Your task to perform on an android device: manage bookmarks in the chrome app Image 0: 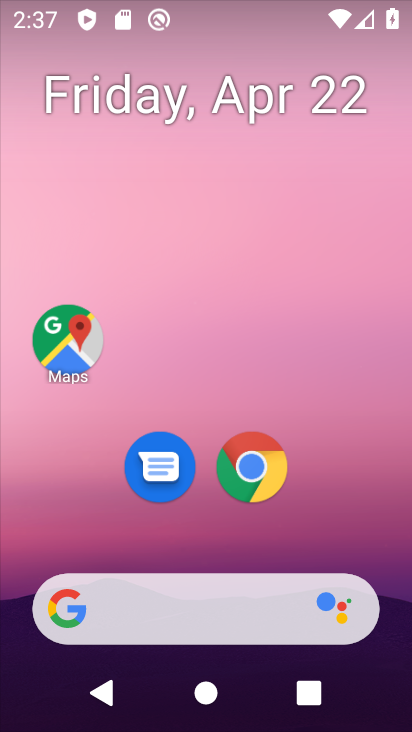
Step 0: click (278, 461)
Your task to perform on an android device: manage bookmarks in the chrome app Image 1: 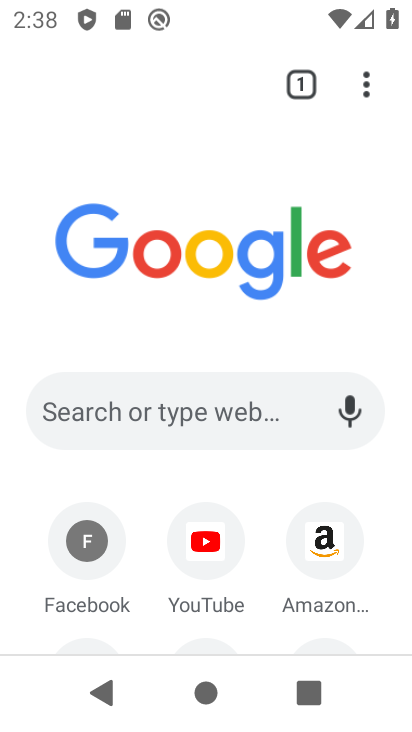
Step 1: click (366, 108)
Your task to perform on an android device: manage bookmarks in the chrome app Image 2: 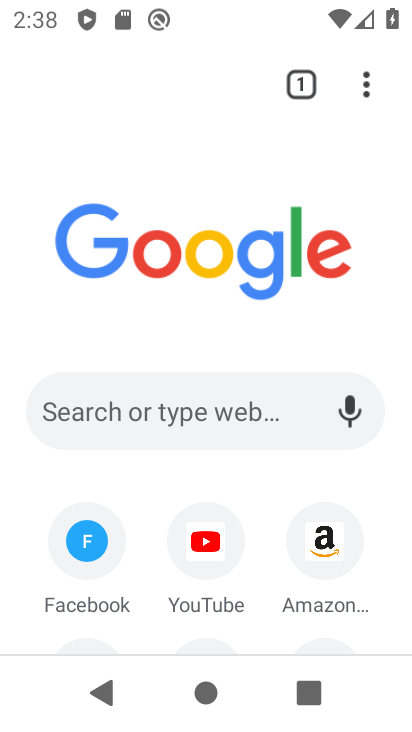
Step 2: drag from (366, 108) to (239, 329)
Your task to perform on an android device: manage bookmarks in the chrome app Image 3: 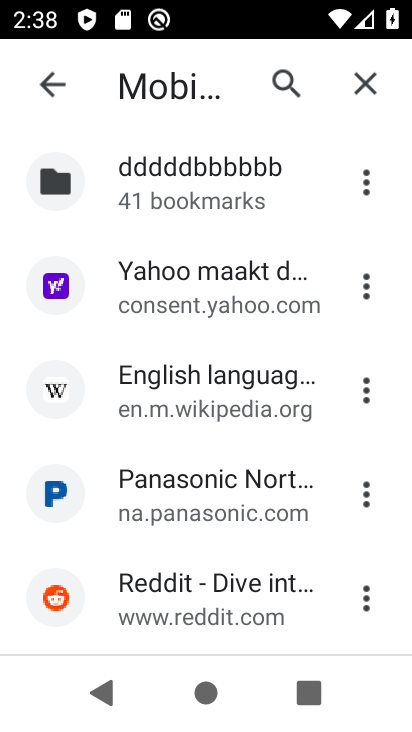
Step 3: click (197, 436)
Your task to perform on an android device: manage bookmarks in the chrome app Image 4: 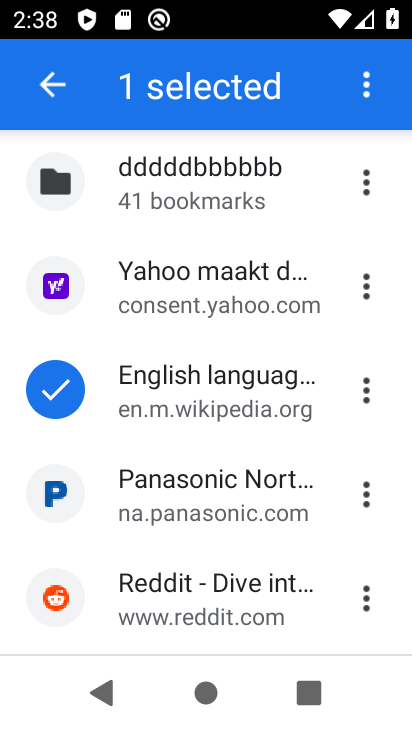
Step 4: click (356, 99)
Your task to perform on an android device: manage bookmarks in the chrome app Image 5: 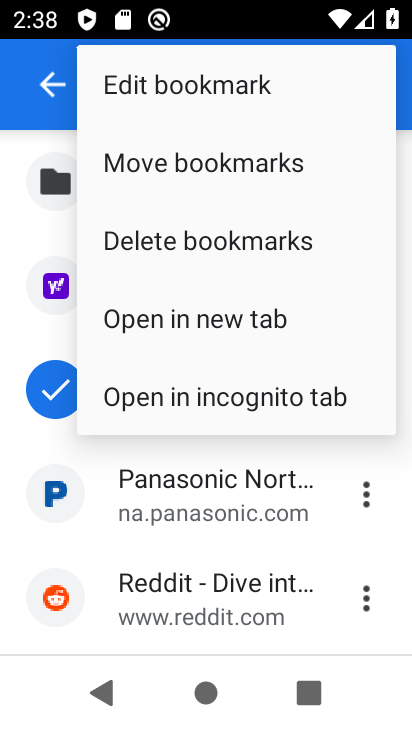
Step 5: click (244, 95)
Your task to perform on an android device: manage bookmarks in the chrome app Image 6: 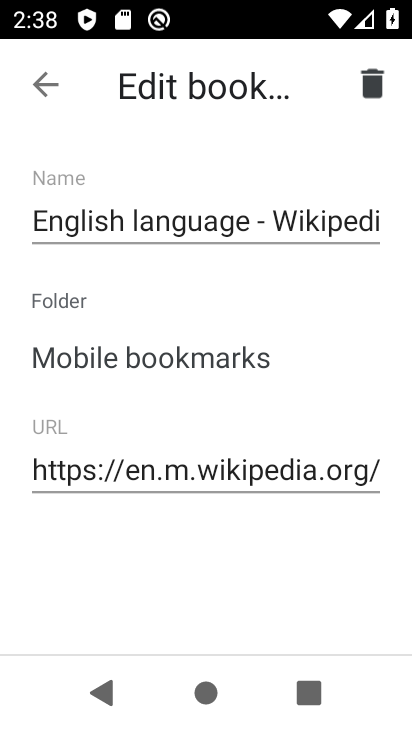
Step 6: click (223, 470)
Your task to perform on an android device: manage bookmarks in the chrome app Image 7: 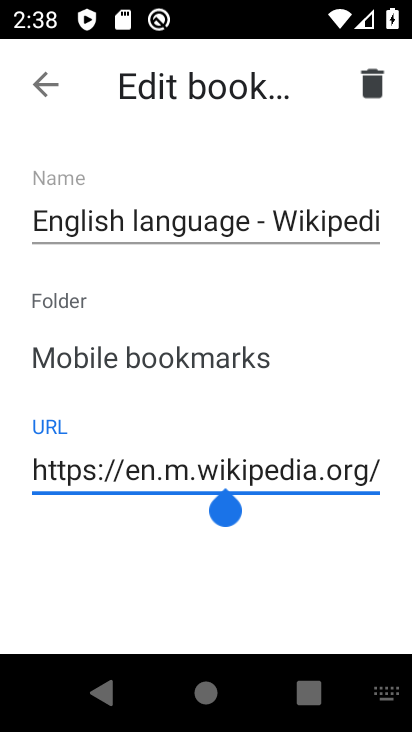
Step 7: click (215, 237)
Your task to perform on an android device: manage bookmarks in the chrome app Image 8: 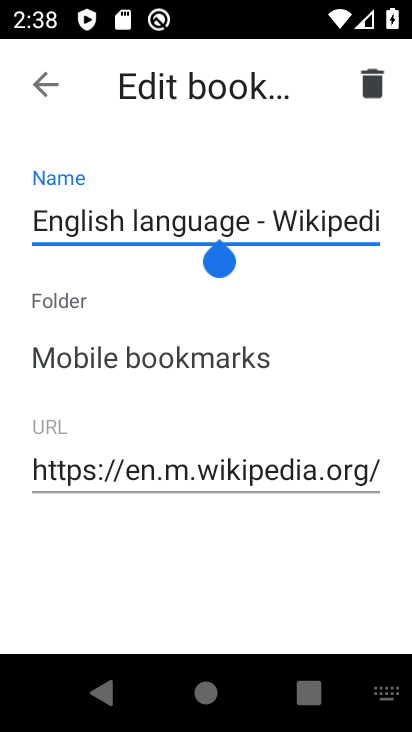
Step 8: click (51, 90)
Your task to perform on an android device: manage bookmarks in the chrome app Image 9: 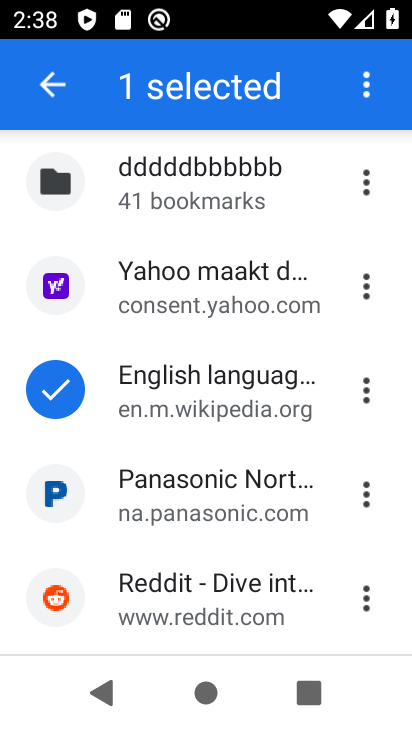
Step 9: click (361, 105)
Your task to perform on an android device: manage bookmarks in the chrome app Image 10: 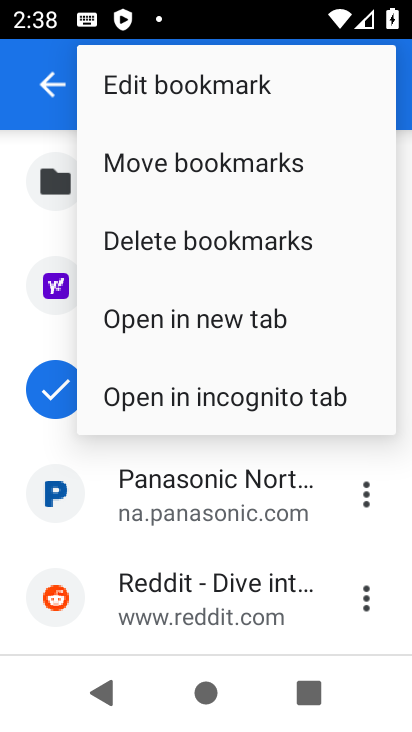
Step 10: click (310, 154)
Your task to perform on an android device: manage bookmarks in the chrome app Image 11: 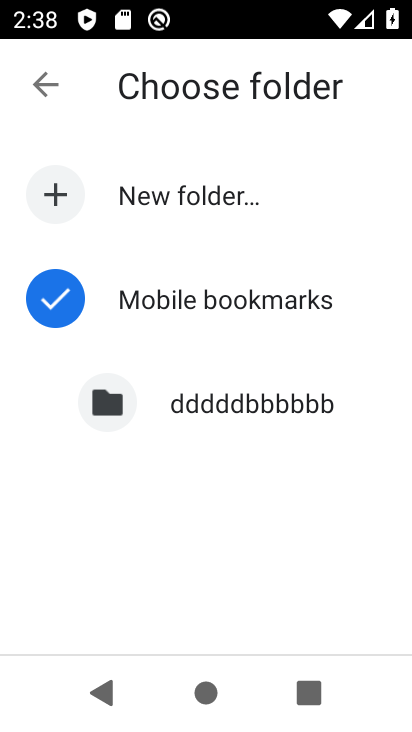
Step 11: click (220, 216)
Your task to perform on an android device: manage bookmarks in the chrome app Image 12: 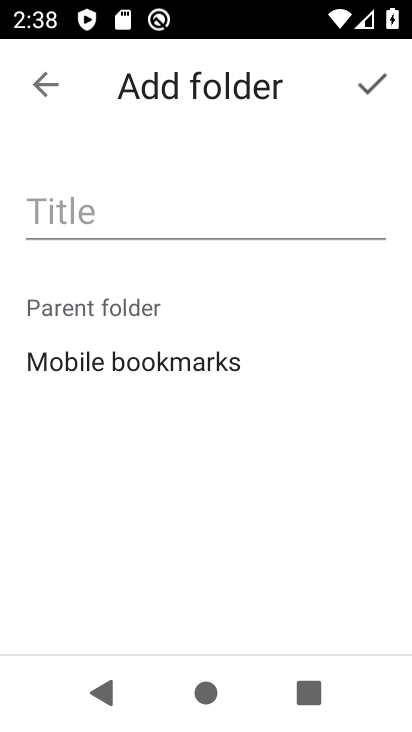
Step 12: click (220, 216)
Your task to perform on an android device: manage bookmarks in the chrome app Image 13: 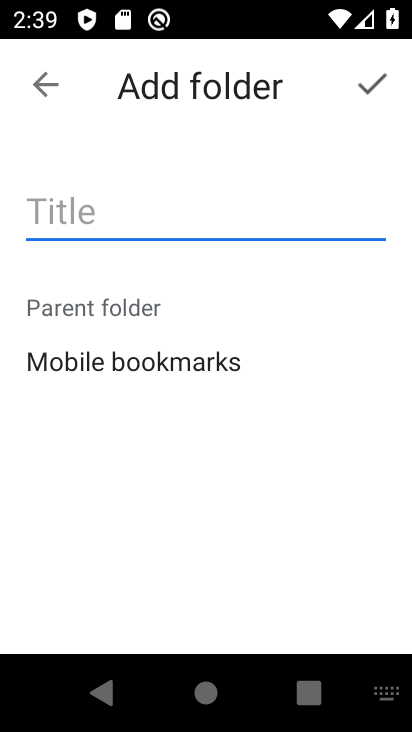
Step 13: type "dgdg"
Your task to perform on an android device: manage bookmarks in the chrome app Image 14: 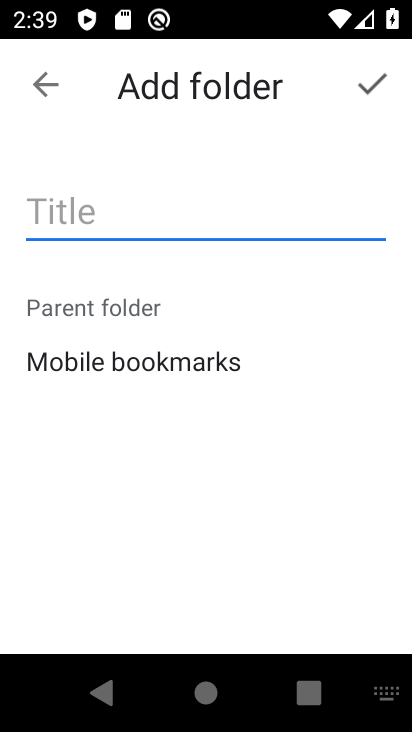
Step 14: click (262, 516)
Your task to perform on an android device: manage bookmarks in the chrome app Image 15: 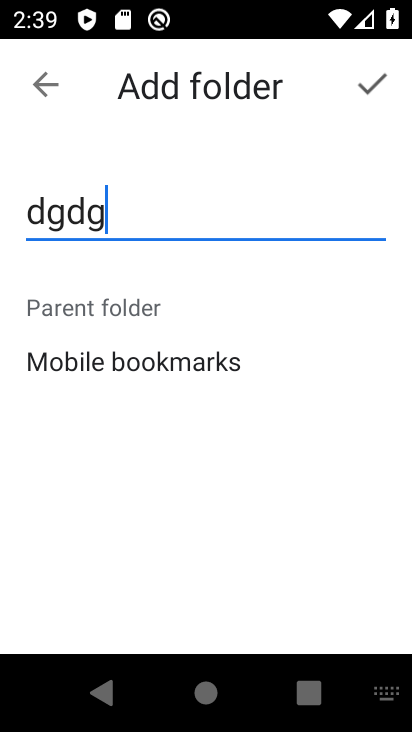
Step 15: click (376, 88)
Your task to perform on an android device: manage bookmarks in the chrome app Image 16: 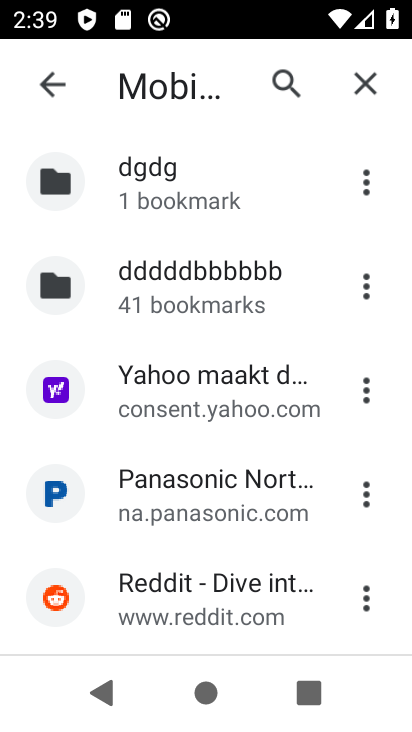
Step 16: task complete